Your task to perform on an android device: change the clock display to analog Image 0: 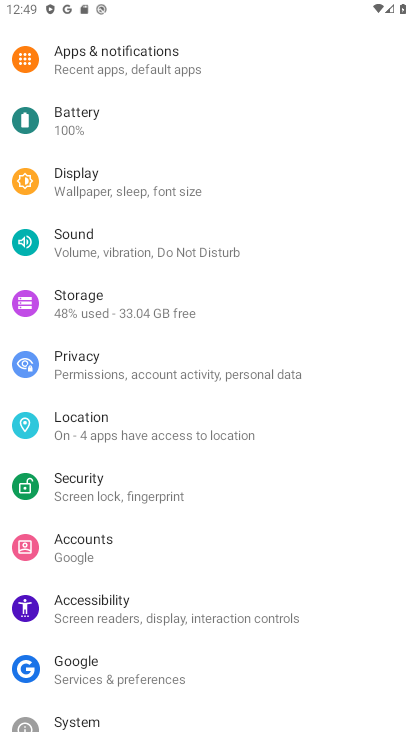
Step 0: press home button
Your task to perform on an android device: change the clock display to analog Image 1: 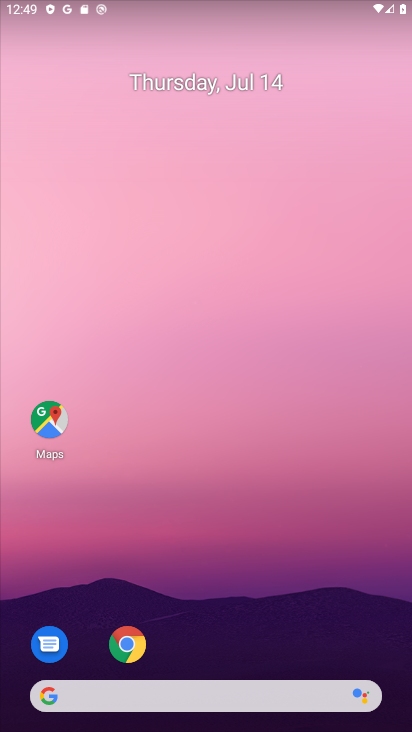
Step 1: drag from (173, 691) to (280, 176)
Your task to perform on an android device: change the clock display to analog Image 2: 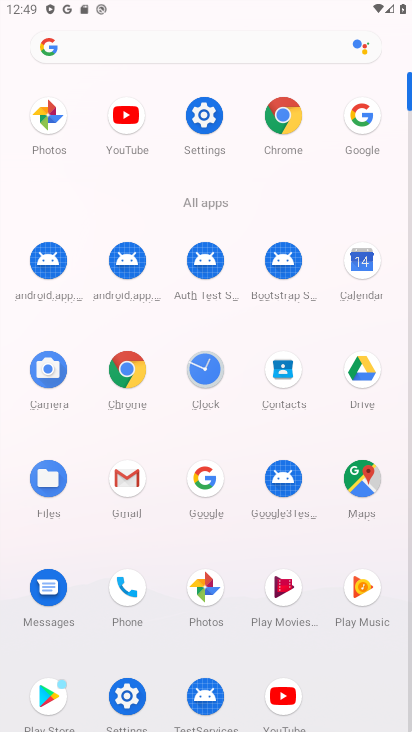
Step 2: click (219, 382)
Your task to perform on an android device: change the clock display to analog Image 3: 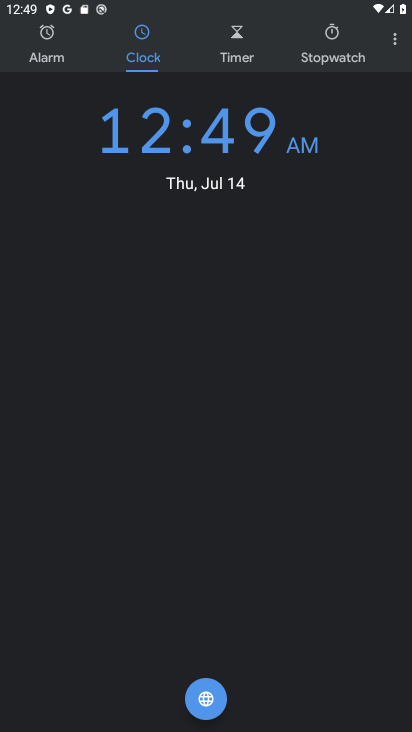
Step 3: click (401, 44)
Your task to perform on an android device: change the clock display to analog Image 4: 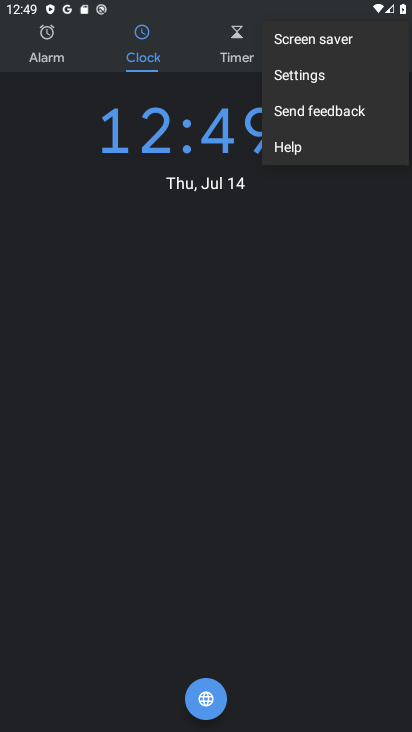
Step 4: click (344, 77)
Your task to perform on an android device: change the clock display to analog Image 5: 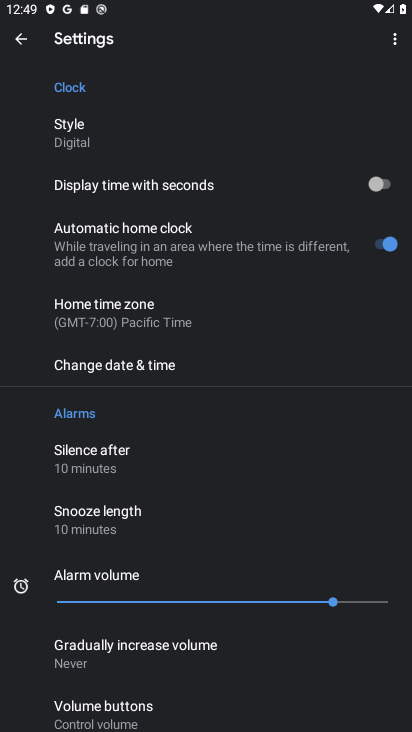
Step 5: click (160, 138)
Your task to perform on an android device: change the clock display to analog Image 6: 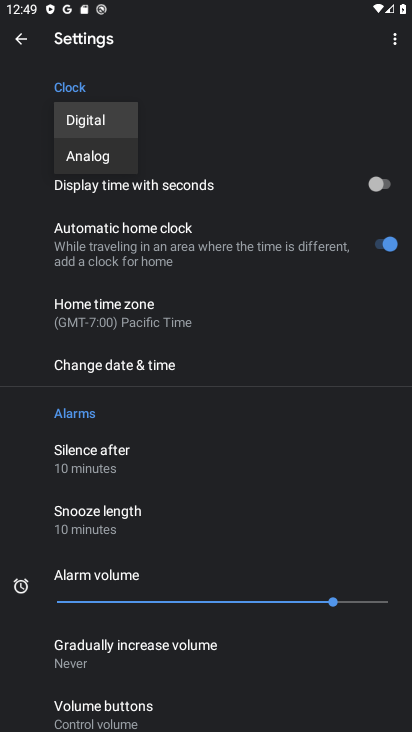
Step 6: click (116, 162)
Your task to perform on an android device: change the clock display to analog Image 7: 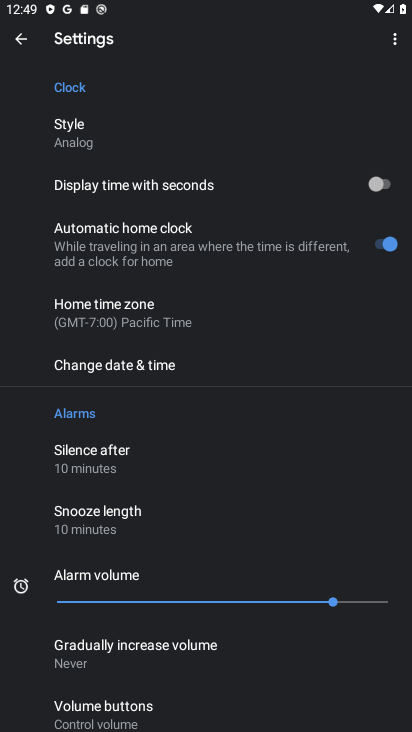
Step 7: task complete